Your task to perform on an android device: move an email to a new category in the gmail app Image 0: 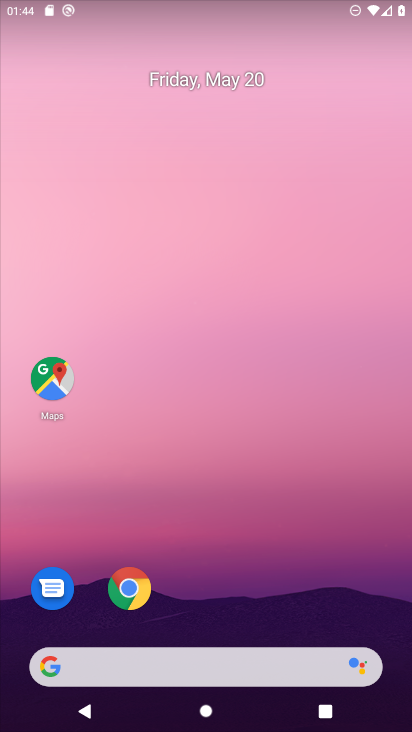
Step 0: drag from (390, 635) to (363, 134)
Your task to perform on an android device: move an email to a new category in the gmail app Image 1: 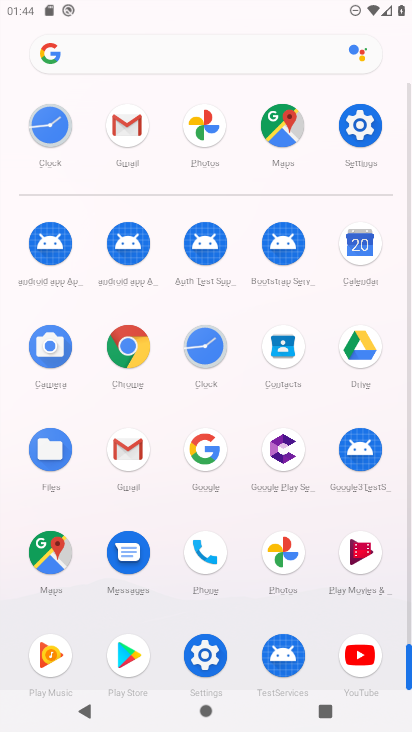
Step 1: click (127, 448)
Your task to perform on an android device: move an email to a new category in the gmail app Image 2: 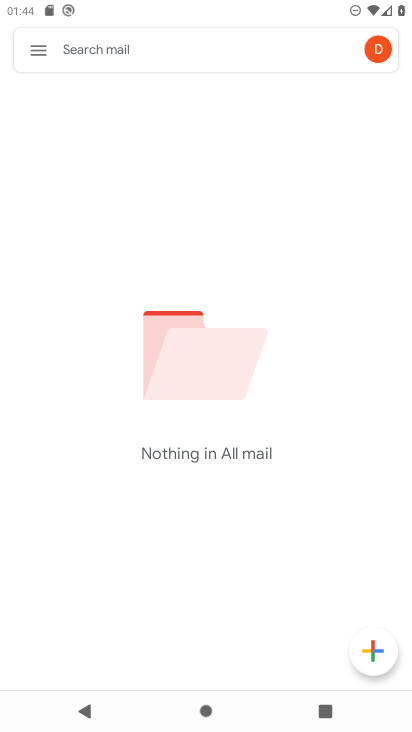
Step 2: click (38, 49)
Your task to perform on an android device: move an email to a new category in the gmail app Image 3: 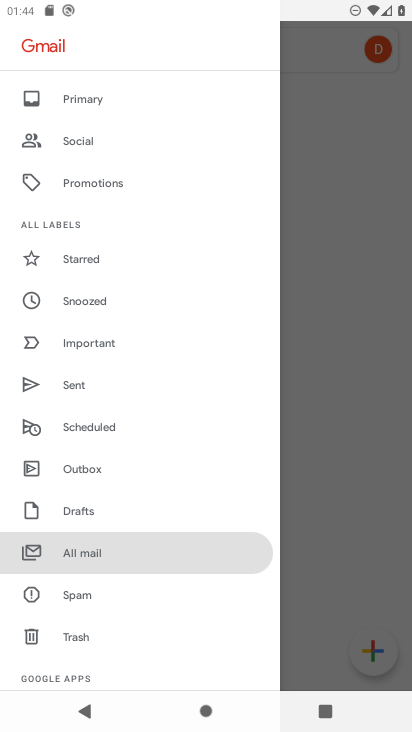
Step 3: click (89, 560)
Your task to perform on an android device: move an email to a new category in the gmail app Image 4: 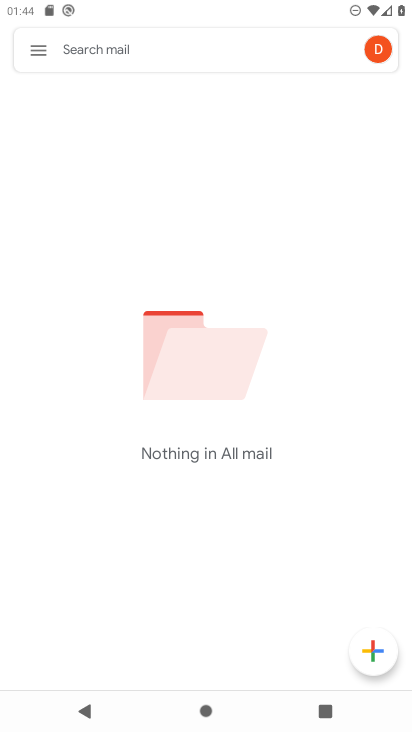
Step 4: task complete